Your task to perform on an android device: What's on my calendar today? Image 0: 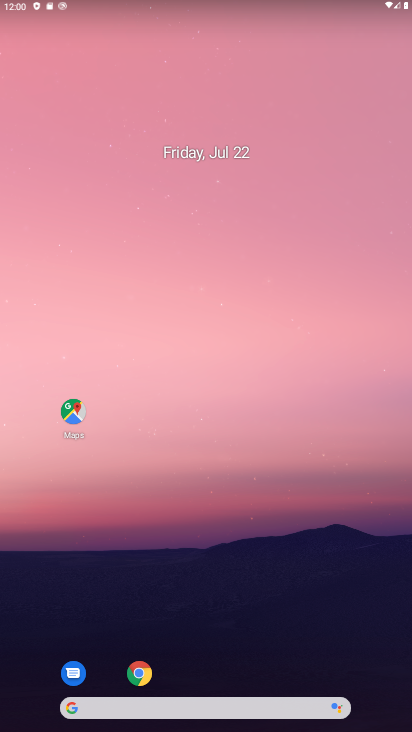
Step 0: drag from (258, 466) to (14, 163)
Your task to perform on an android device: What's on my calendar today? Image 1: 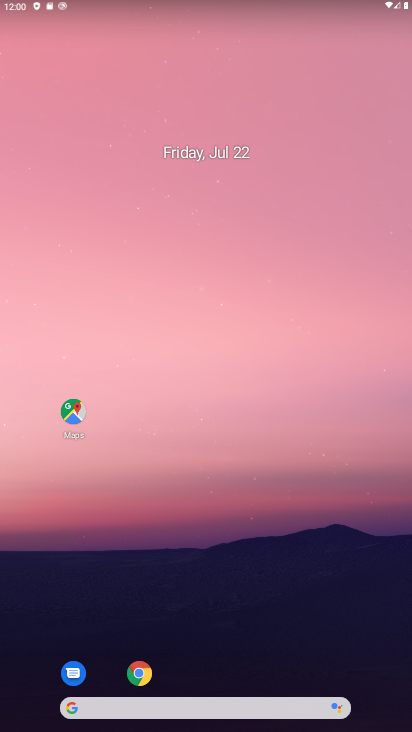
Step 1: drag from (191, 633) to (282, 94)
Your task to perform on an android device: What's on my calendar today? Image 2: 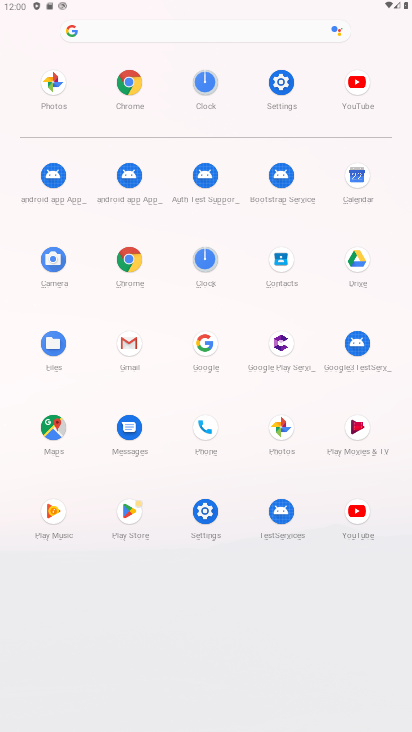
Step 2: click (350, 172)
Your task to perform on an android device: What's on my calendar today? Image 3: 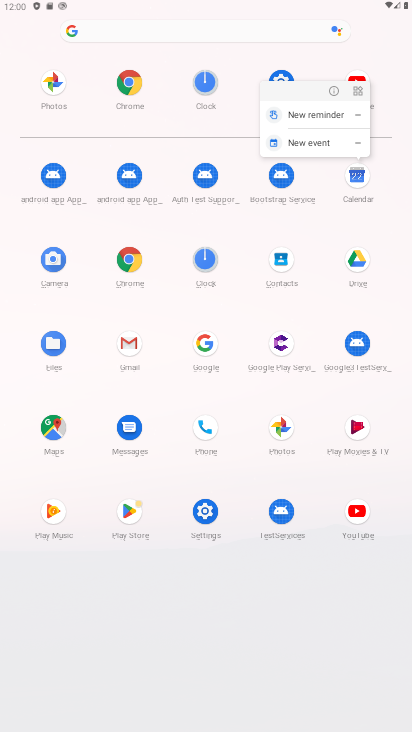
Step 3: click (327, 86)
Your task to perform on an android device: What's on my calendar today? Image 4: 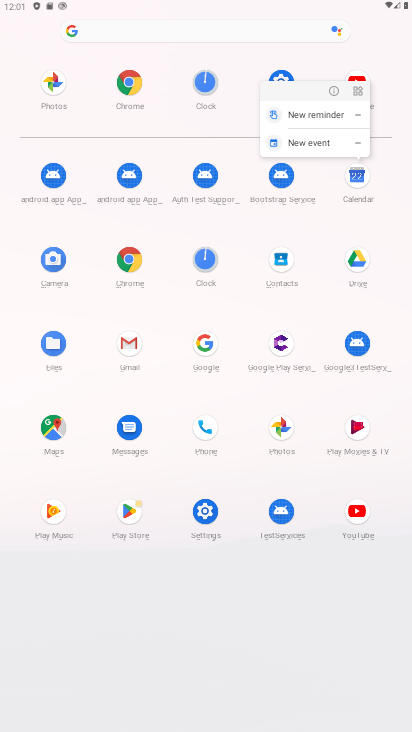
Step 4: click (333, 96)
Your task to perform on an android device: What's on my calendar today? Image 5: 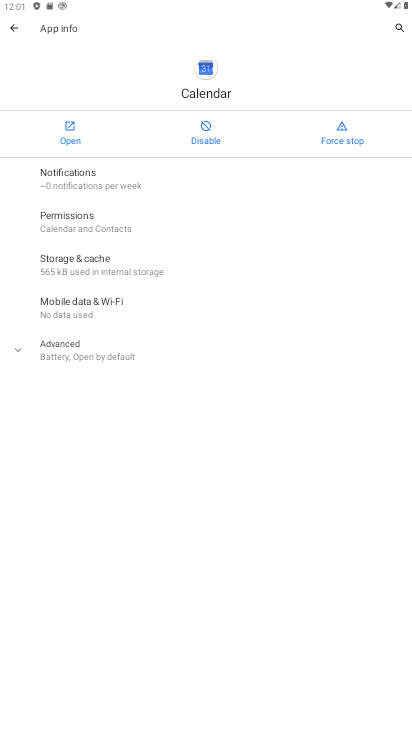
Step 5: click (63, 135)
Your task to perform on an android device: What's on my calendar today? Image 6: 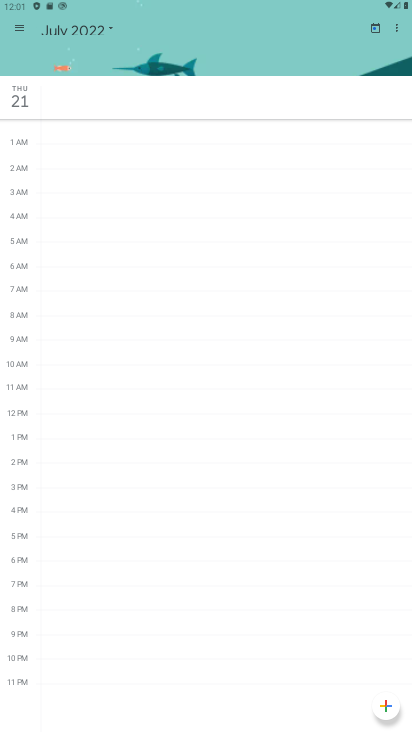
Step 6: drag from (204, 512) to (209, 201)
Your task to perform on an android device: What's on my calendar today? Image 7: 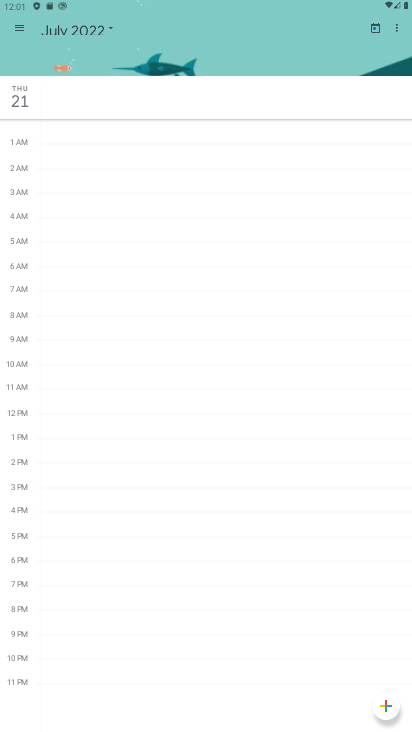
Step 7: click (374, 26)
Your task to perform on an android device: What's on my calendar today? Image 8: 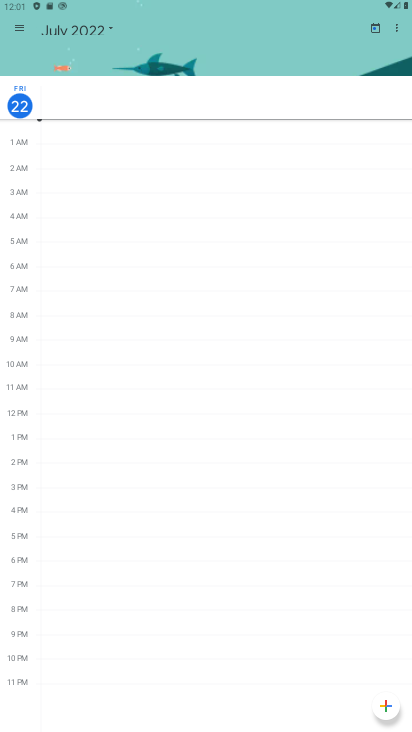
Step 8: task complete